Your task to perform on an android device: see tabs open on other devices in the chrome app Image 0: 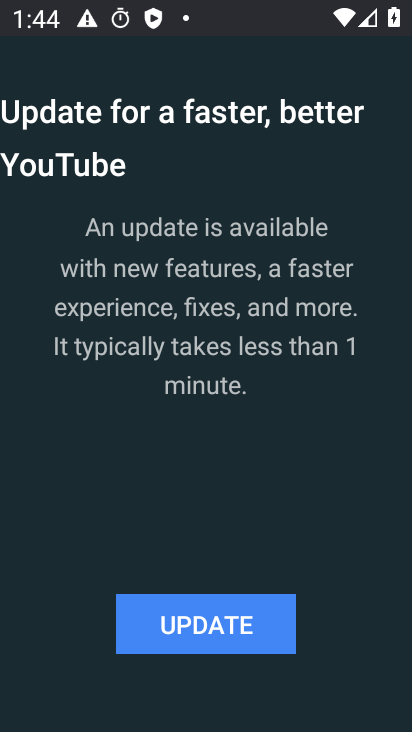
Step 0: press home button
Your task to perform on an android device: see tabs open on other devices in the chrome app Image 1: 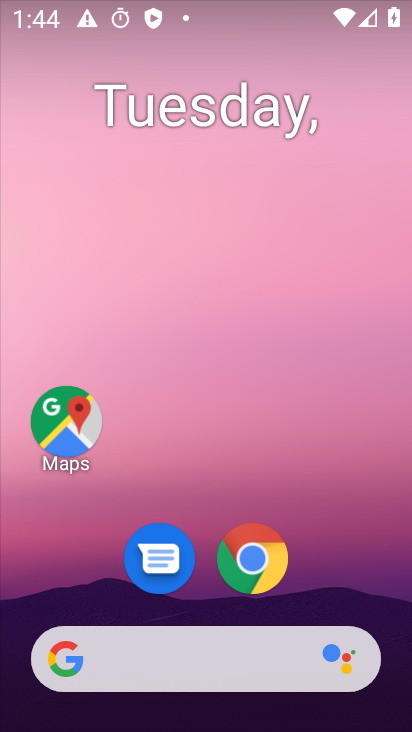
Step 1: drag from (207, 506) to (236, 103)
Your task to perform on an android device: see tabs open on other devices in the chrome app Image 2: 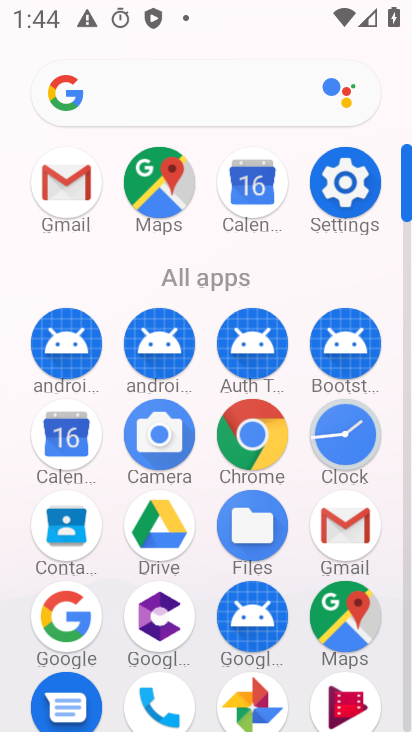
Step 2: click (253, 436)
Your task to perform on an android device: see tabs open on other devices in the chrome app Image 3: 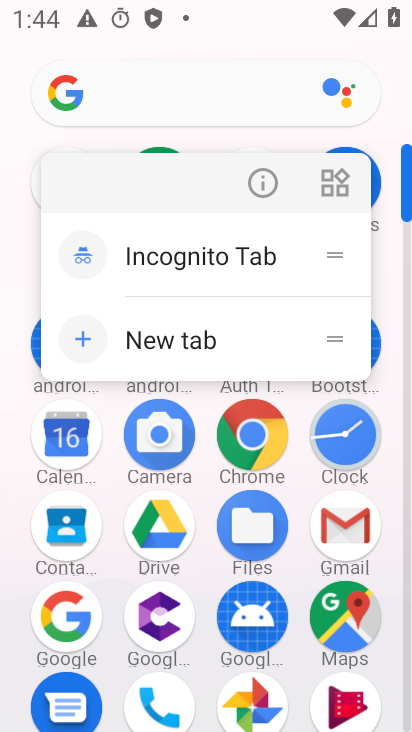
Step 3: click (253, 436)
Your task to perform on an android device: see tabs open on other devices in the chrome app Image 4: 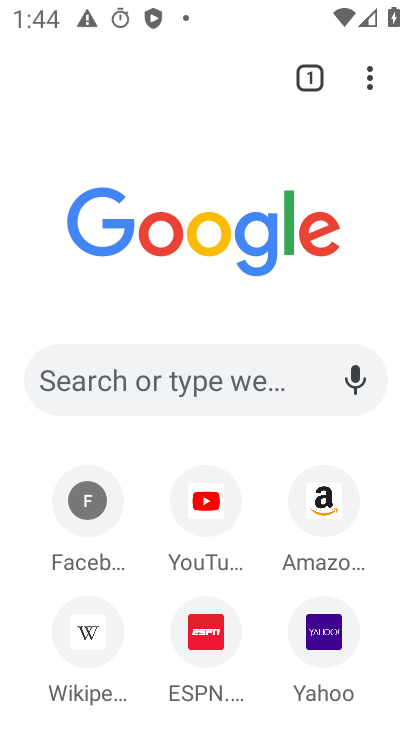
Step 4: click (374, 76)
Your task to perform on an android device: see tabs open on other devices in the chrome app Image 5: 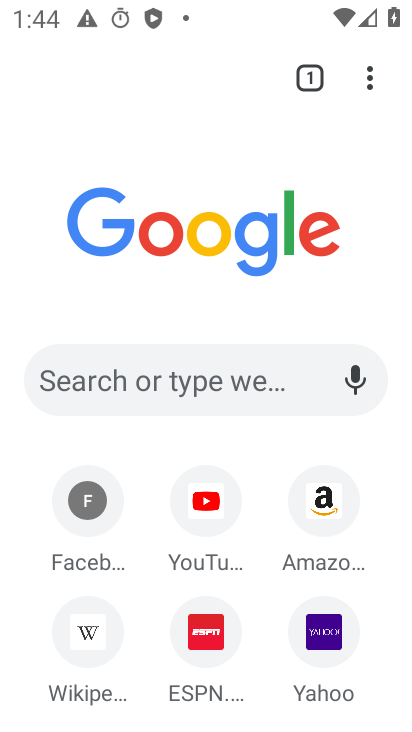
Step 5: click (373, 70)
Your task to perform on an android device: see tabs open on other devices in the chrome app Image 6: 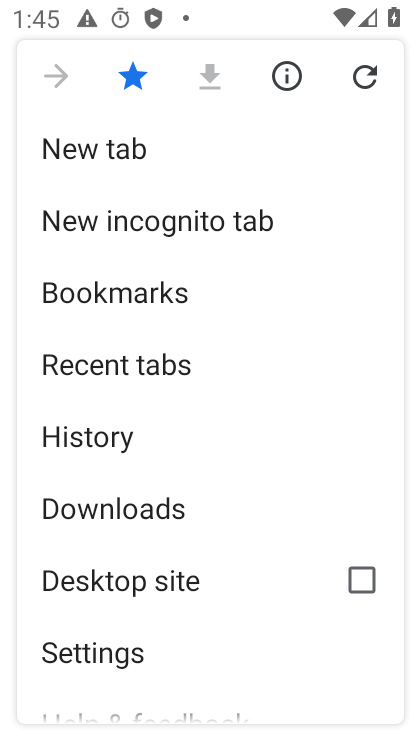
Step 6: click (129, 359)
Your task to perform on an android device: see tabs open on other devices in the chrome app Image 7: 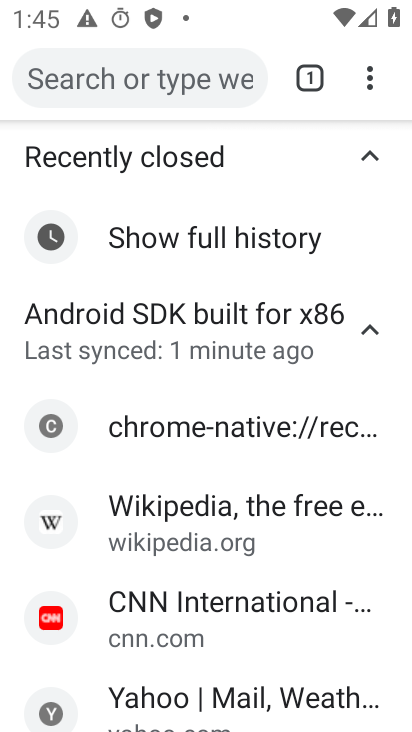
Step 7: task complete